Your task to perform on an android device: show emergency info Image 0: 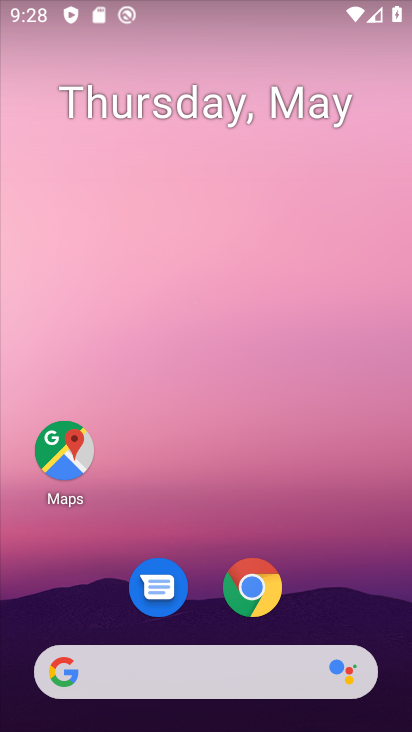
Step 0: drag from (318, 611) to (285, 192)
Your task to perform on an android device: show emergency info Image 1: 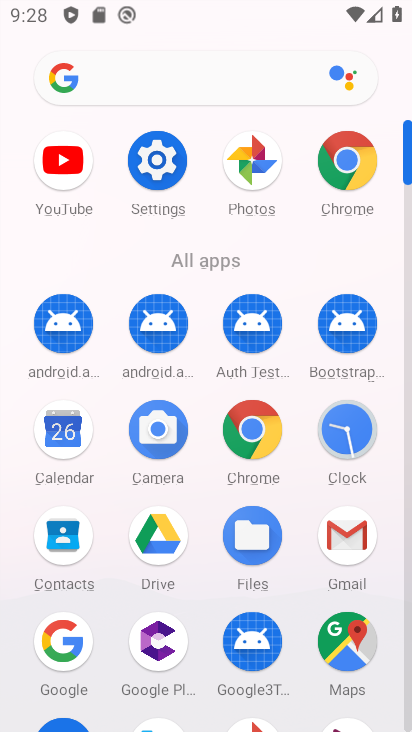
Step 1: click (152, 159)
Your task to perform on an android device: show emergency info Image 2: 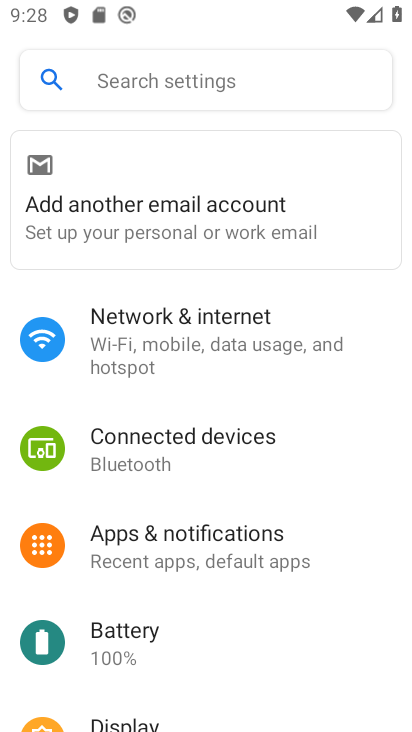
Step 2: drag from (256, 618) to (242, 364)
Your task to perform on an android device: show emergency info Image 3: 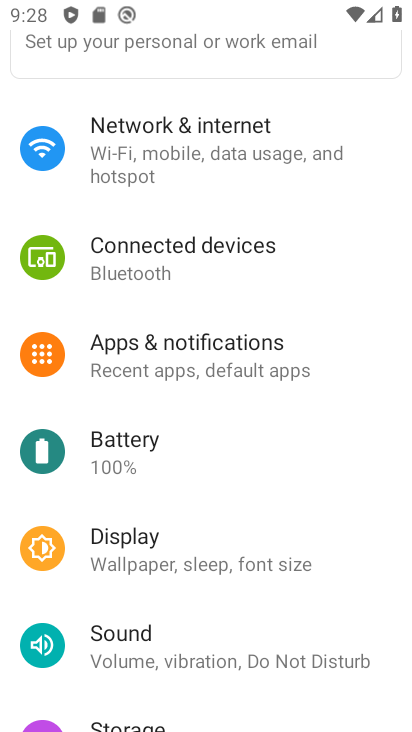
Step 3: drag from (255, 622) to (236, 423)
Your task to perform on an android device: show emergency info Image 4: 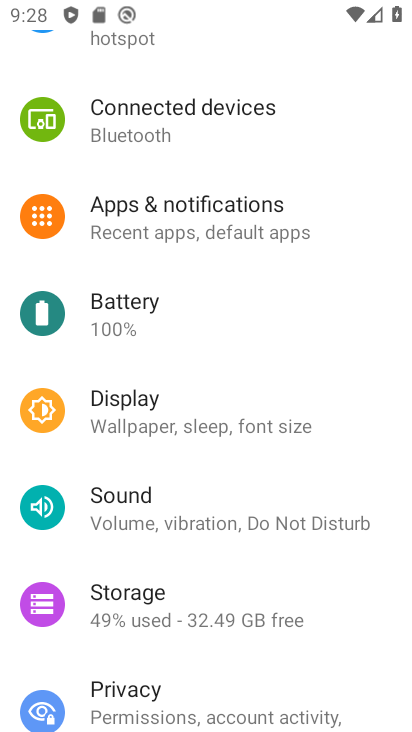
Step 4: drag from (263, 668) to (239, 232)
Your task to perform on an android device: show emergency info Image 5: 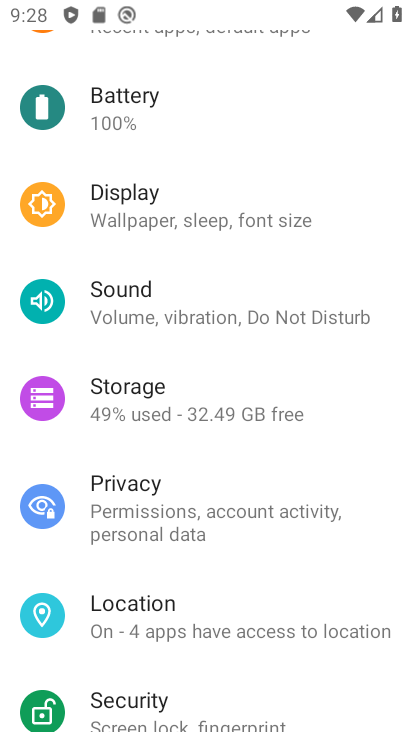
Step 5: drag from (251, 657) to (244, 195)
Your task to perform on an android device: show emergency info Image 6: 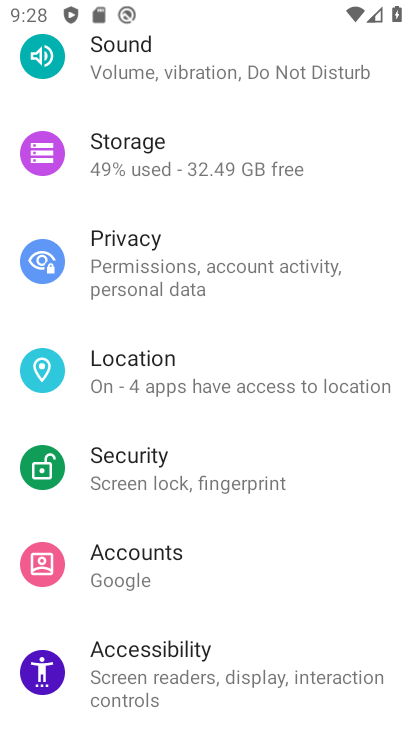
Step 6: drag from (221, 595) to (227, 307)
Your task to perform on an android device: show emergency info Image 7: 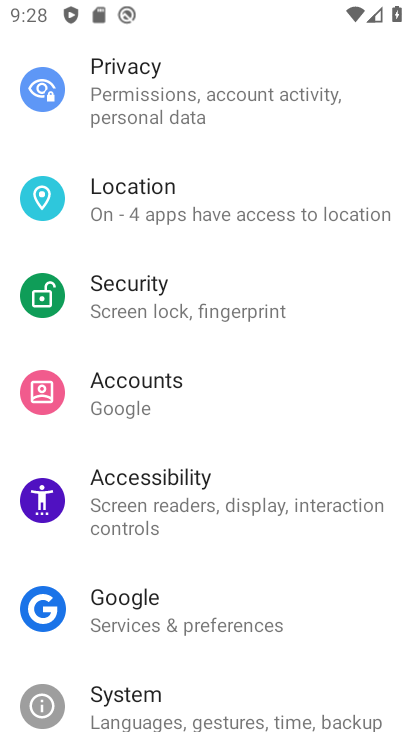
Step 7: drag from (215, 660) to (213, 243)
Your task to perform on an android device: show emergency info Image 8: 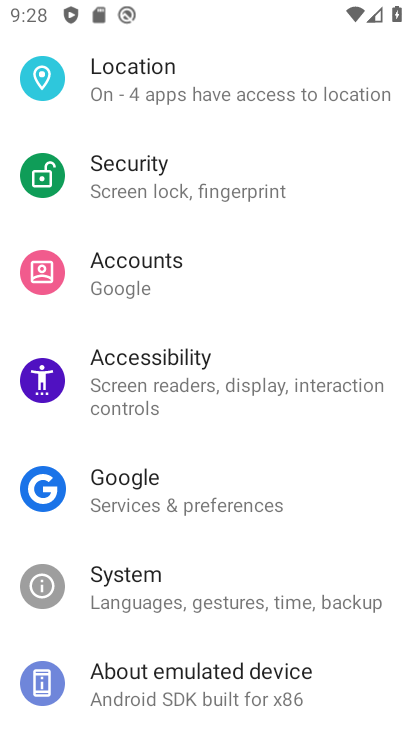
Step 8: click (173, 691)
Your task to perform on an android device: show emergency info Image 9: 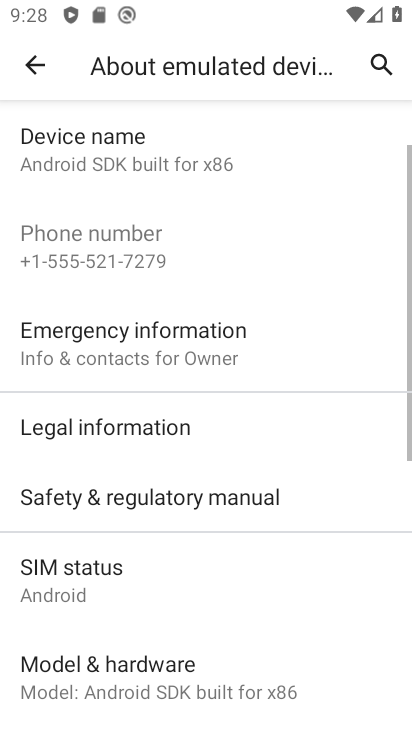
Step 9: click (189, 362)
Your task to perform on an android device: show emergency info Image 10: 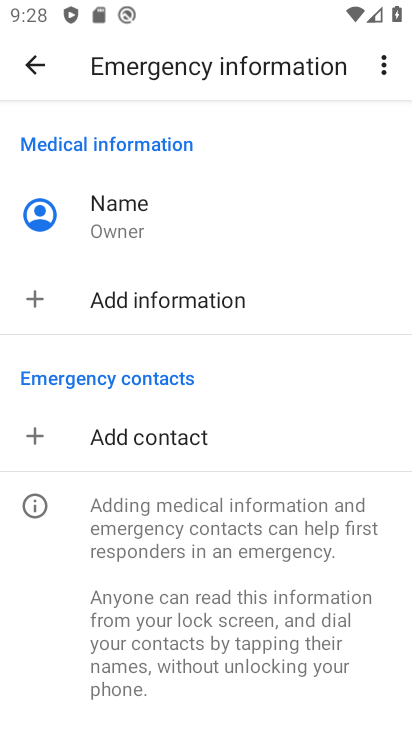
Step 10: task complete